Your task to perform on an android device: turn smart compose on in the gmail app Image 0: 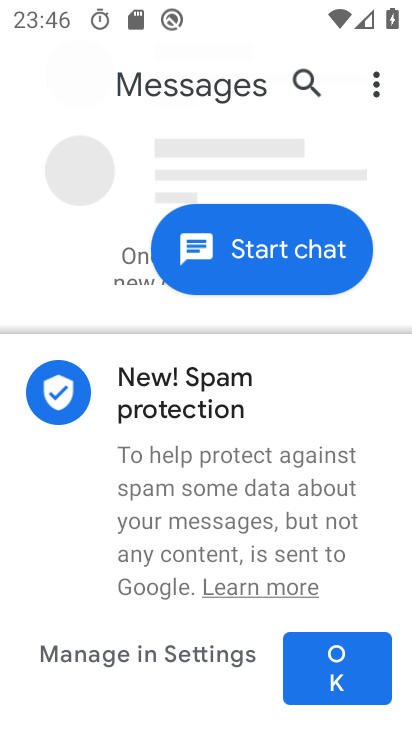
Step 0: press home button
Your task to perform on an android device: turn smart compose on in the gmail app Image 1: 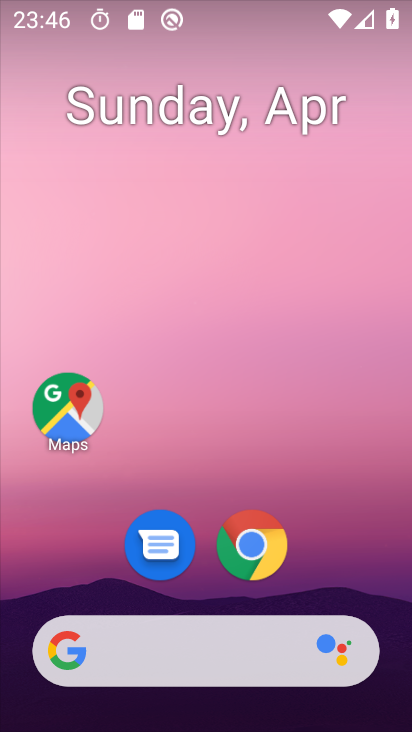
Step 1: drag from (321, 573) to (375, 202)
Your task to perform on an android device: turn smart compose on in the gmail app Image 2: 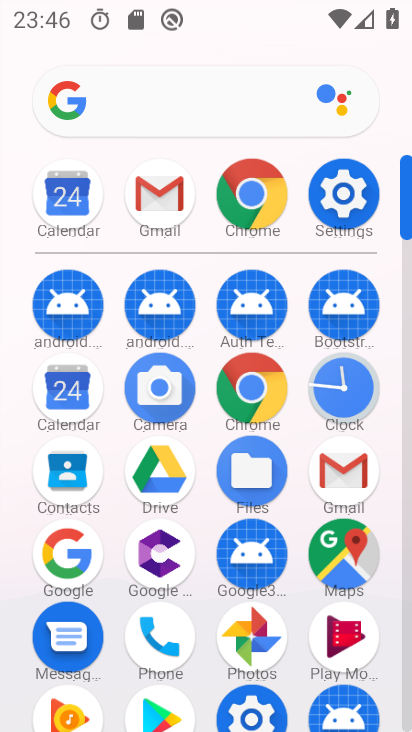
Step 2: click (149, 196)
Your task to perform on an android device: turn smart compose on in the gmail app Image 3: 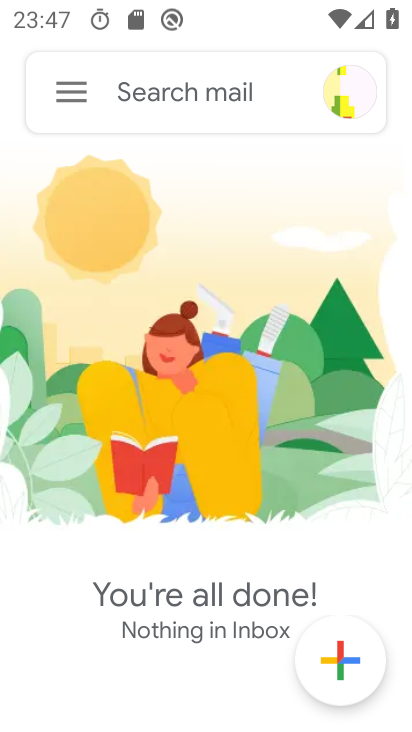
Step 3: click (65, 84)
Your task to perform on an android device: turn smart compose on in the gmail app Image 4: 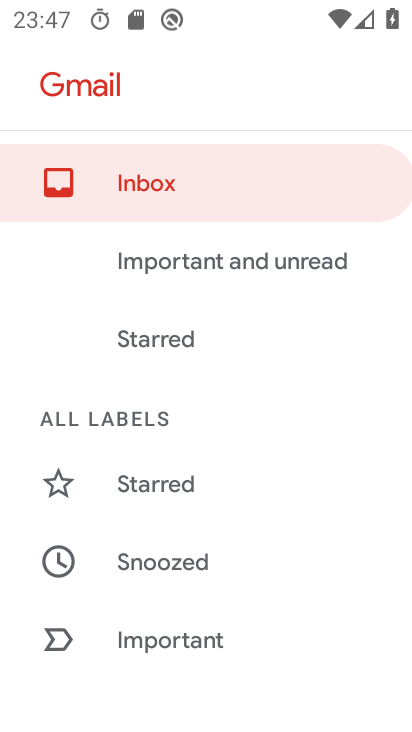
Step 4: drag from (224, 623) to (301, 231)
Your task to perform on an android device: turn smart compose on in the gmail app Image 5: 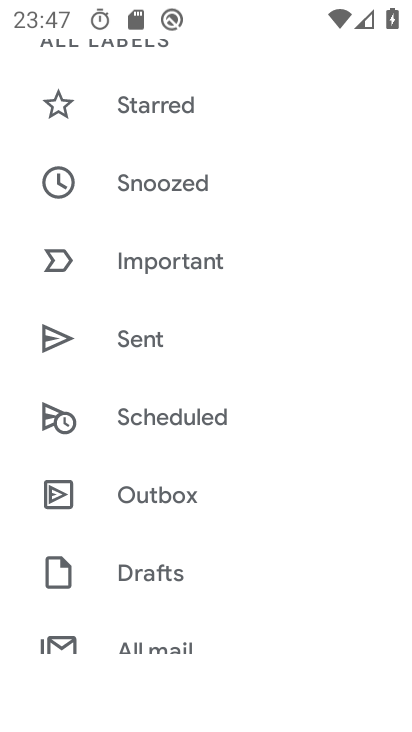
Step 5: drag from (203, 615) to (273, 232)
Your task to perform on an android device: turn smart compose on in the gmail app Image 6: 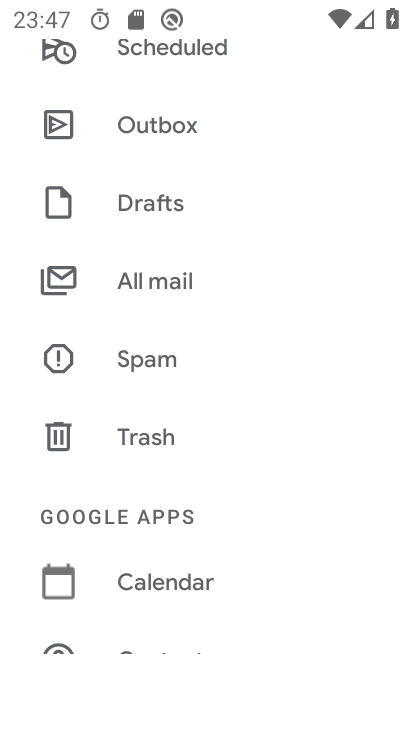
Step 6: drag from (172, 569) to (243, 233)
Your task to perform on an android device: turn smart compose on in the gmail app Image 7: 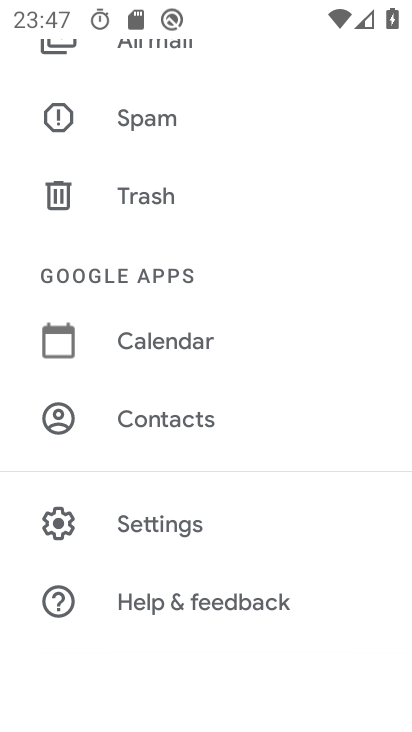
Step 7: click (146, 523)
Your task to perform on an android device: turn smart compose on in the gmail app Image 8: 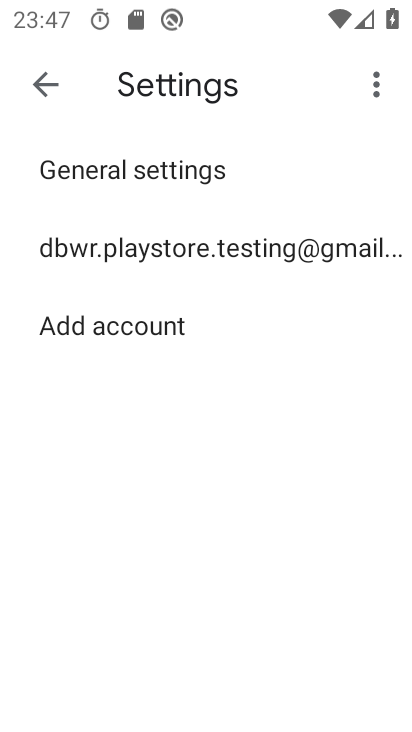
Step 8: click (209, 244)
Your task to perform on an android device: turn smart compose on in the gmail app Image 9: 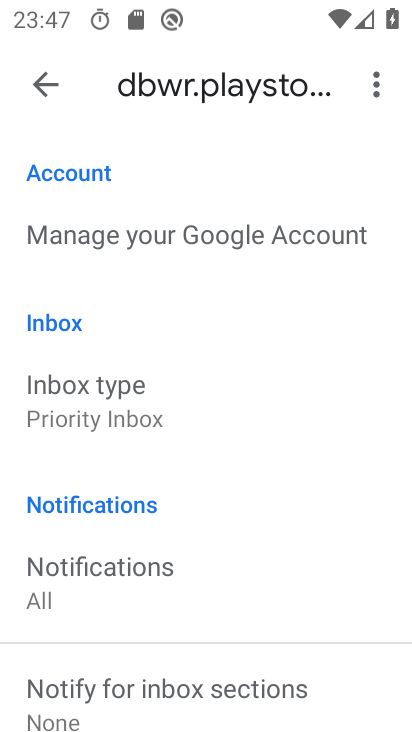
Step 9: task complete